Your task to perform on an android device: Show me popular games on the Play Store Image 0: 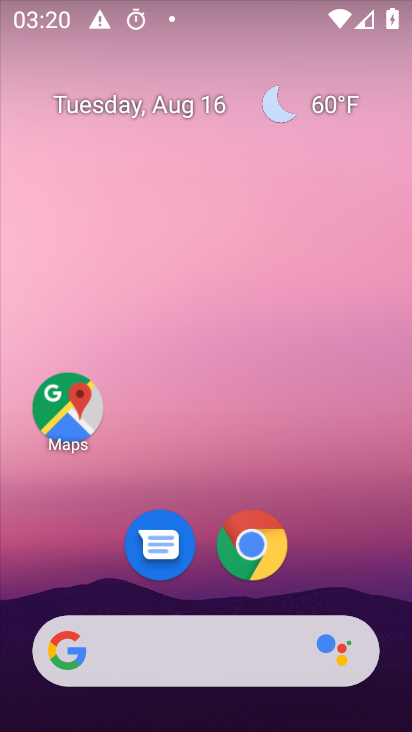
Step 0: drag from (159, 620) to (204, 246)
Your task to perform on an android device: Show me popular games on the Play Store Image 1: 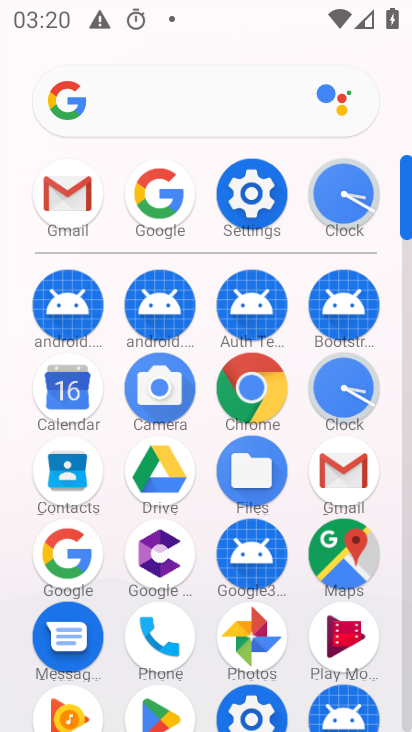
Step 1: click (148, 702)
Your task to perform on an android device: Show me popular games on the Play Store Image 2: 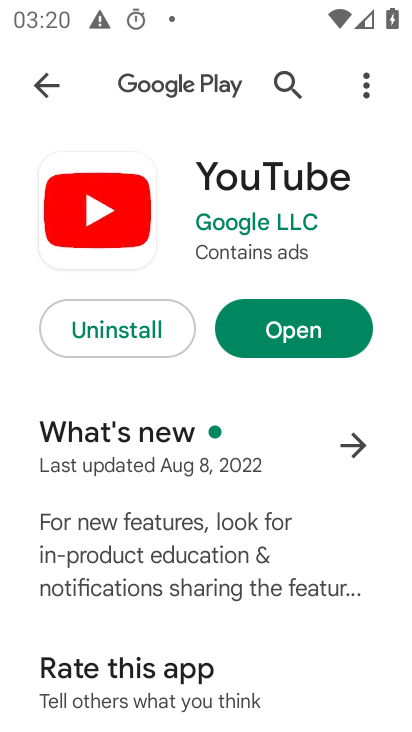
Step 2: click (282, 78)
Your task to perform on an android device: Show me popular games on the Play Store Image 3: 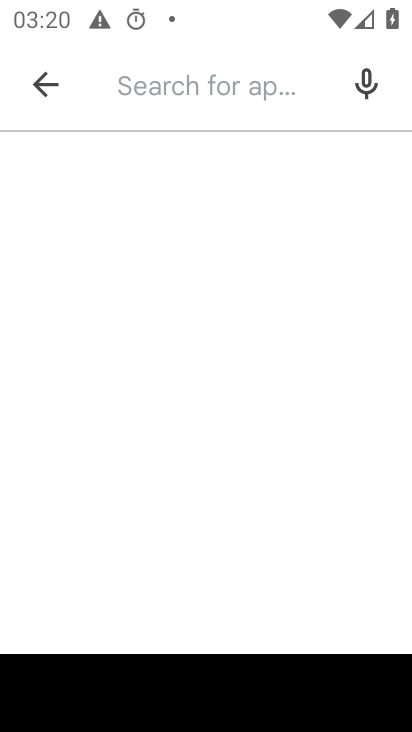
Step 3: type " popular games"
Your task to perform on an android device: Show me popular games on the Play Store Image 4: 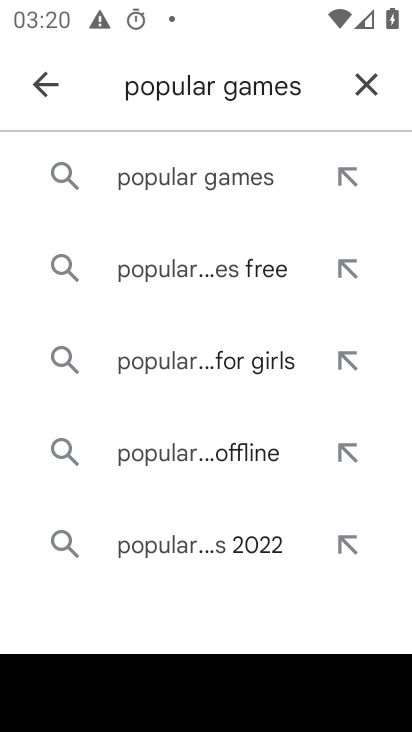
Step 4: click (214, 179)
Your task to perform on an android device: Show me popular games on the Play Store Image 5: 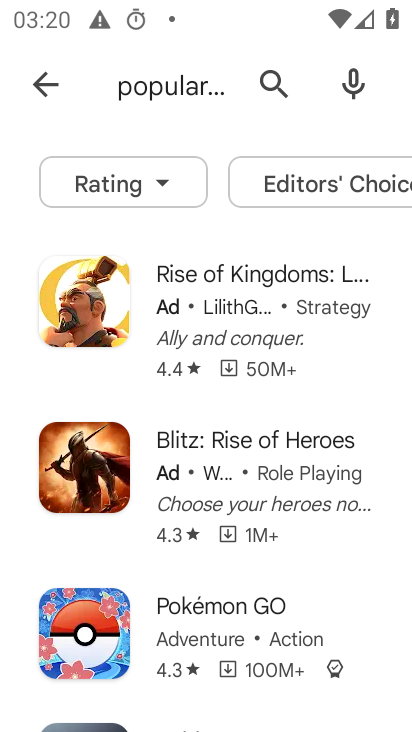
Step 5: task complete